Your task to perform on an android device: delete browsing data in the chrome app Image 0: 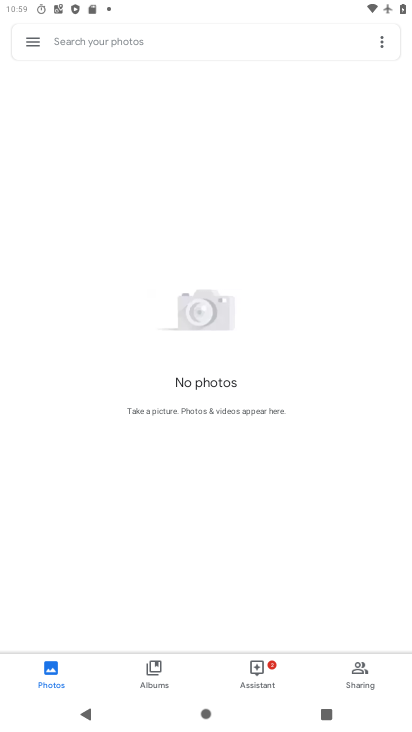
Step 0: press home button
Your task to perform on an android device: delete browsing data in the chrome app Image 1: 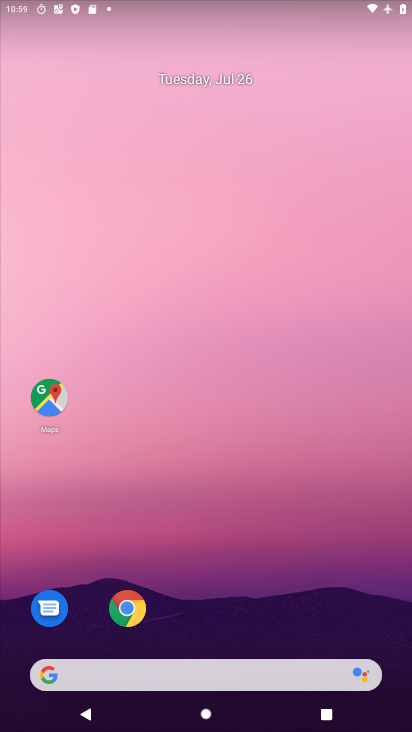
Step 1: click (146, 606)
Your task to perform on an android device: delete browsing data in the chrome app Image 2: 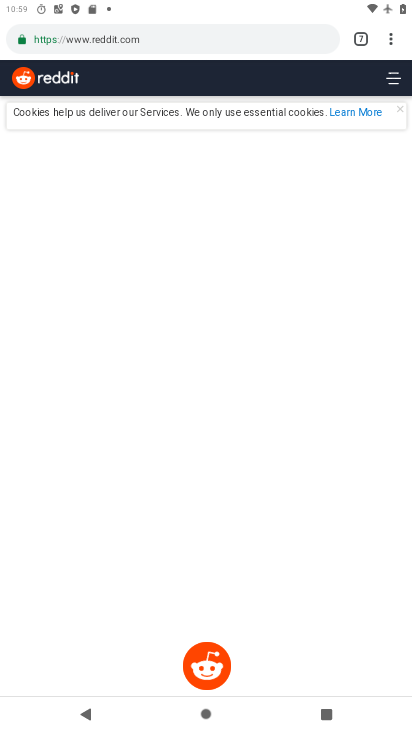
Step 2: click (394, 30)
Your task to perform on an android device: delete browsing data in the chrome app Image 3: 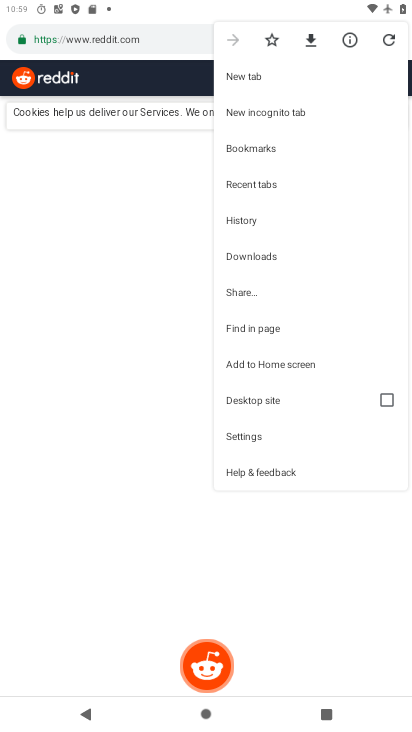
Step 3: click (288, 216)
Your task to perform on an android device: delete browsing data in the chrome app Image 4: 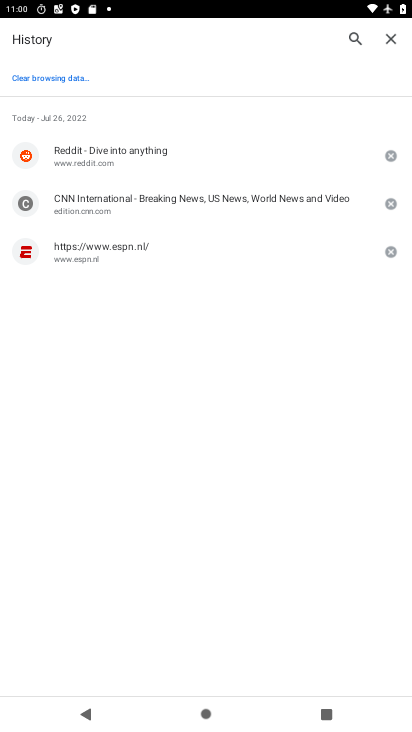
Step 4: click (54, 80)
Your task to perform on an android device: delete browsing data in the chrome app Image 5: 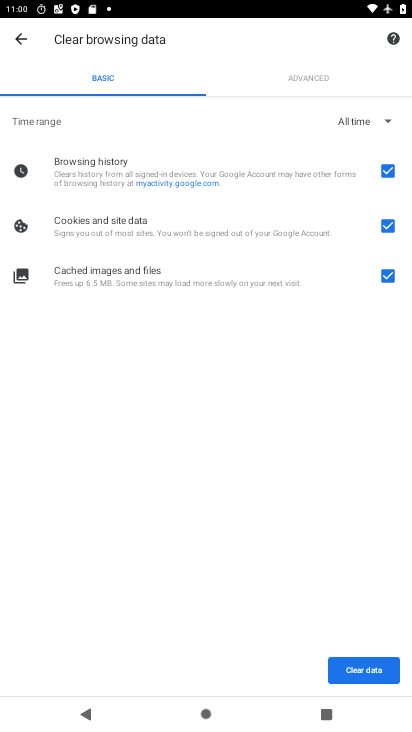
Step 5: click (362, 669)
Your task to perform on an android device: delete browsing data in the chrome app Image 6: 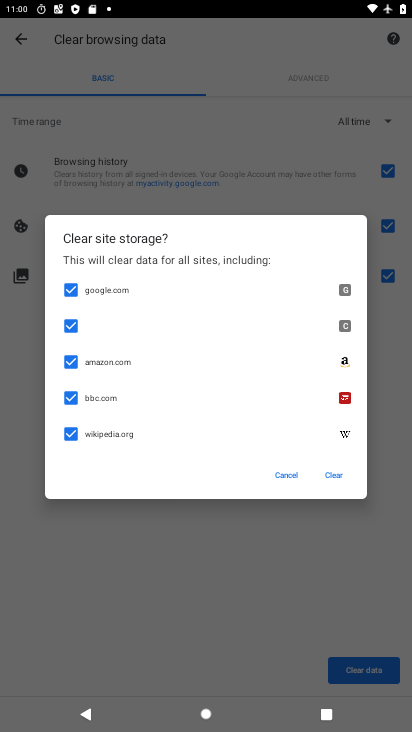
Step 6: click (327, 482)
Your task to perform on an android device: delete browsing data in the chrome app Image 7: 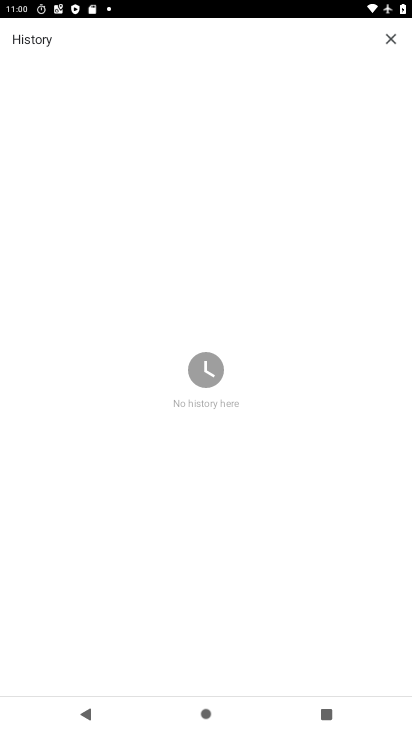
Step 7: task complete